Your task to perform on an android device: empty trash in google photos Image 0: 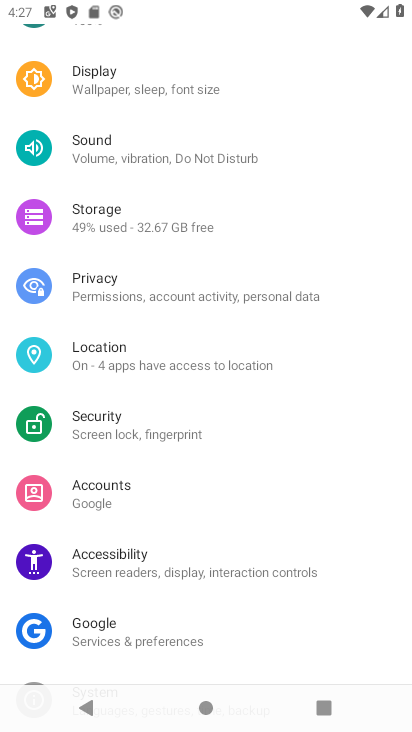
Step 0: drag from (155, 525) to (162, 245)
Your task to perform on an android device: empty trash in google photos Image 1: 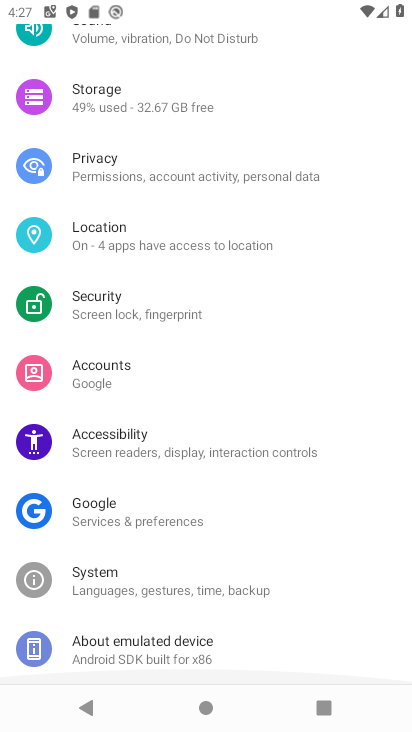
Step 1: drag from (198, 471) to (181, 170)
Your task to perform on an android device: empty trash in google photos Image 2: 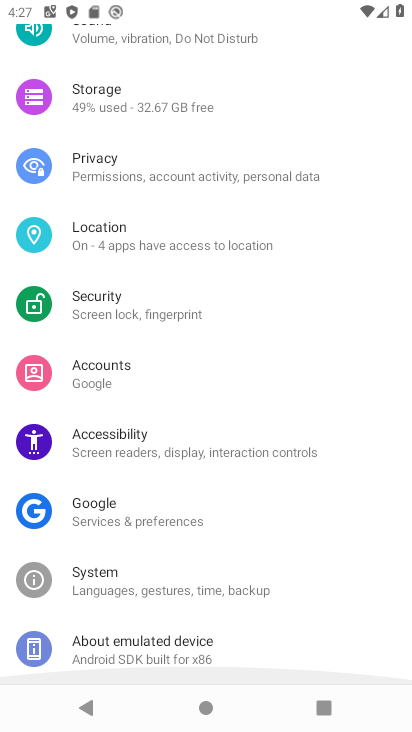
Step 2: drag from (163, 337) to (158, 45)
Your task to perform on an android device: empty trash in google photos Image 3: 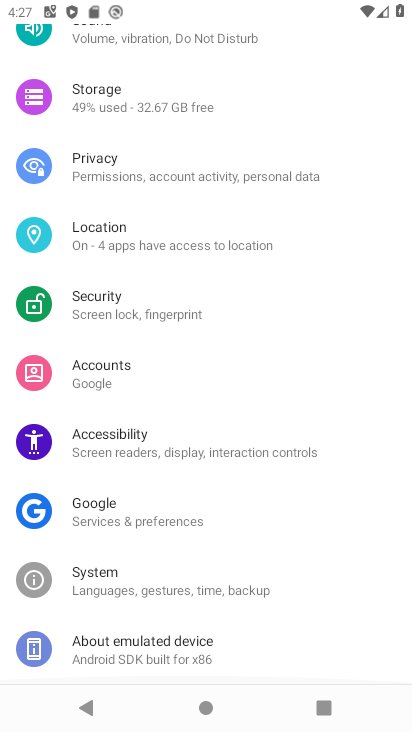
Step 3: drag from (167, 302) to (178, 117)
Your task to perform on an android device: empty trash in google photos Image 4: 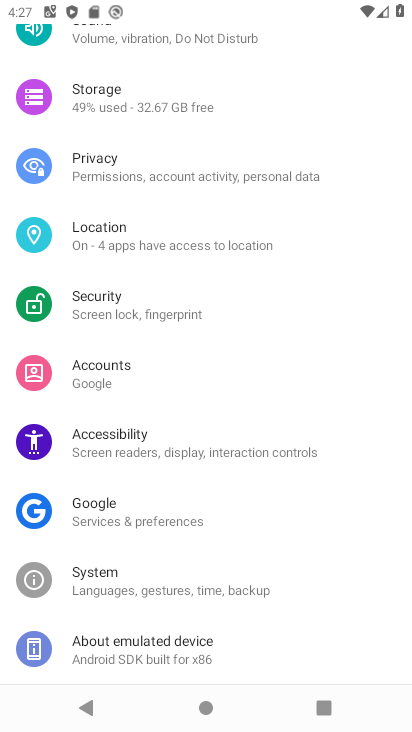
Step 4: drag from (146, 516) to (142, 22)
Your task to perform on an android device: empty trash in google photos Image 5: 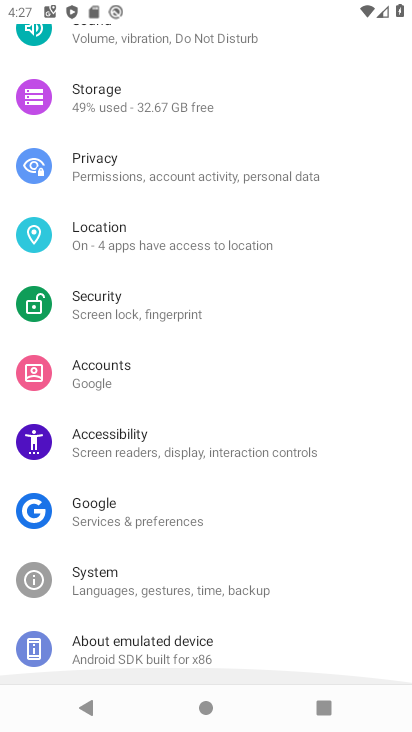
Step 5: drag from (176, 451) to (113, 181)
Your task to perform on an android device: empty trash in google photos Image 6: 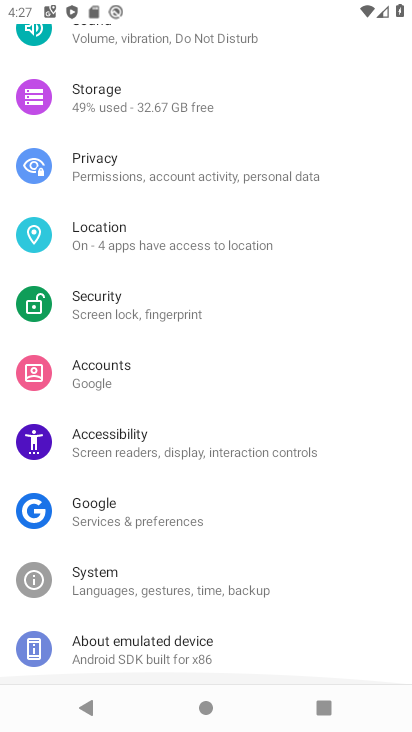
Step 6: drag from (144, 503) to (131, 153)
Your task to perform on an android device: empty trash in google photos Image 7: 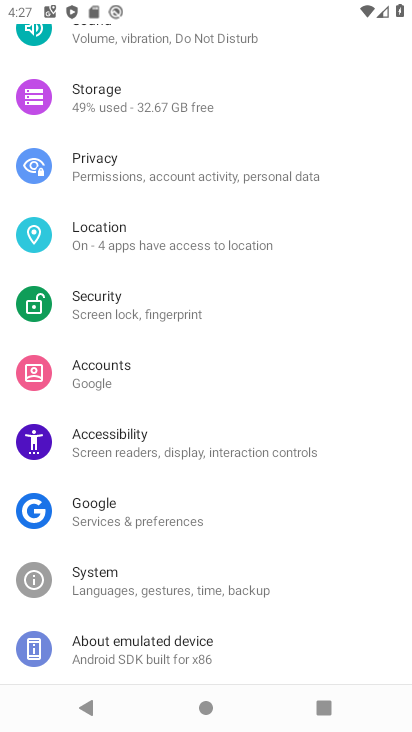
Step 7: press back button
Your task to perform on an android device: empty trash in google photos Image 8: 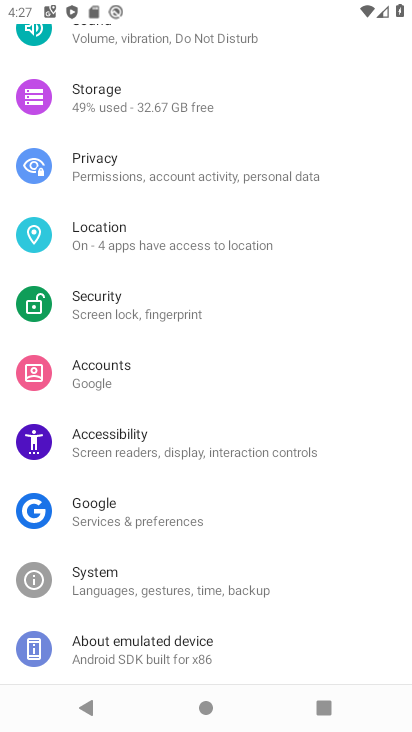
Step 8: press back button
Your task to perform on an android device: empty trash in google photos Image 9: 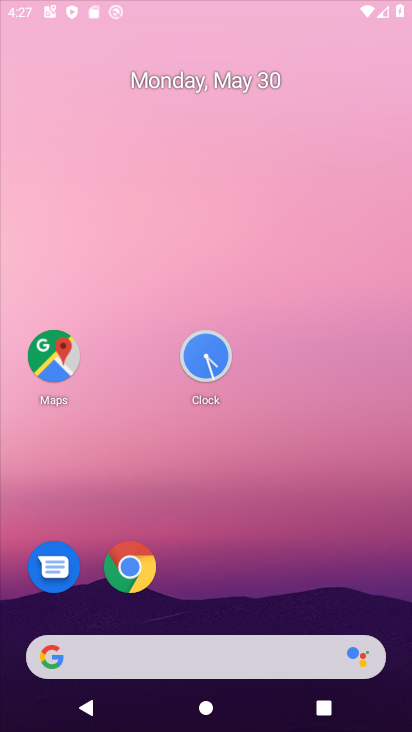
Step 9: press back button
Your task to perform on an android device: empty trash in google photos Image 10: 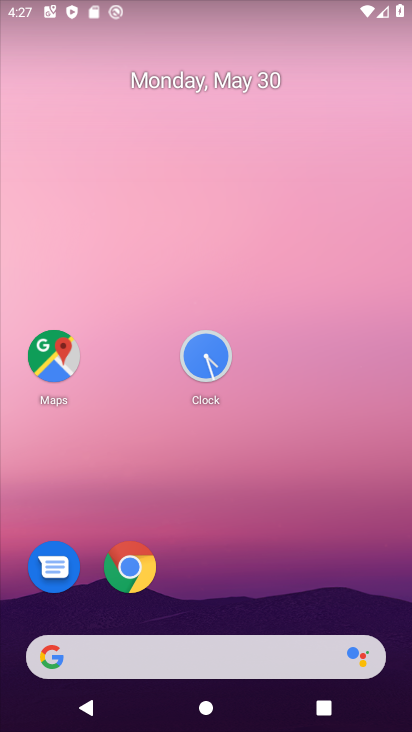
Step 10: drag from (311, 641) to (302, 97)
Your task to perform on an android device: empty trash in google photos Image 11: 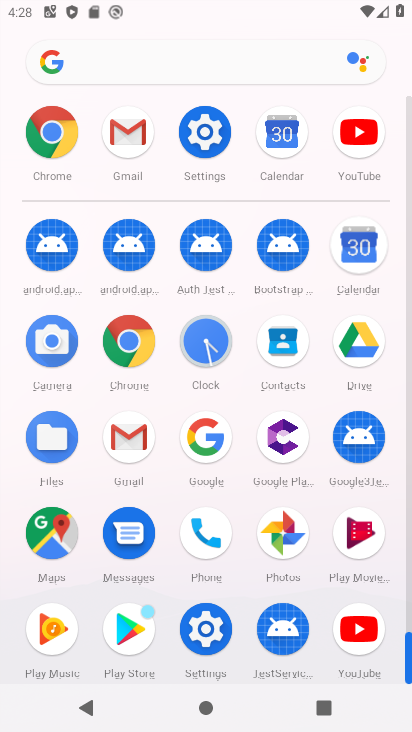
Step 11: click (286, 543)
Your task to perform on an android device: empty trash in google photos Image 12: 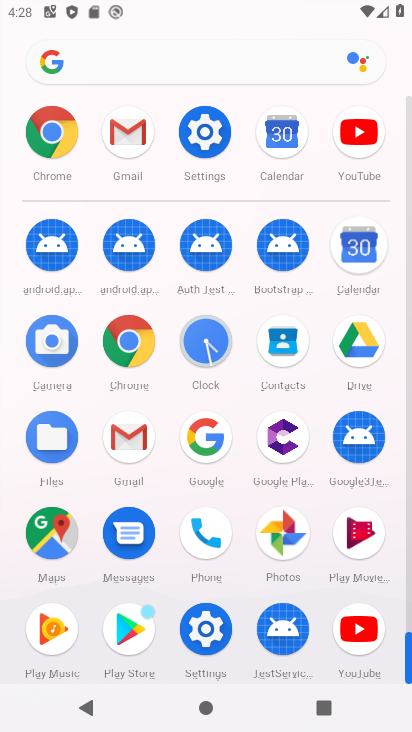
Step 12: click (287, 544)
Your task to perform on an android device: empty trash in google photos Image 13: 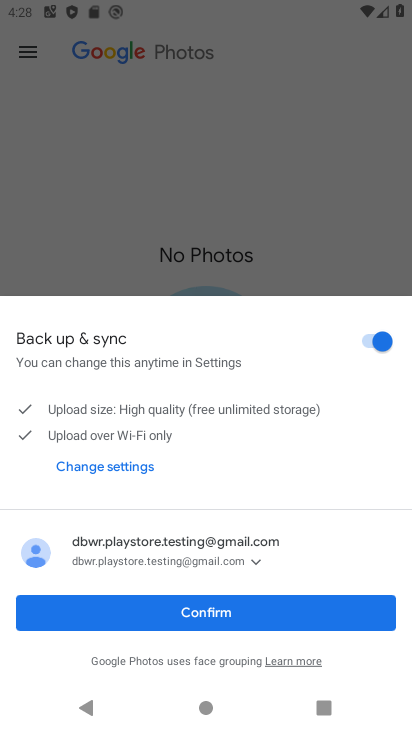
Step 13: click (222, 617)
Your task to perform on an android device: empty trash in google photos Image 14: 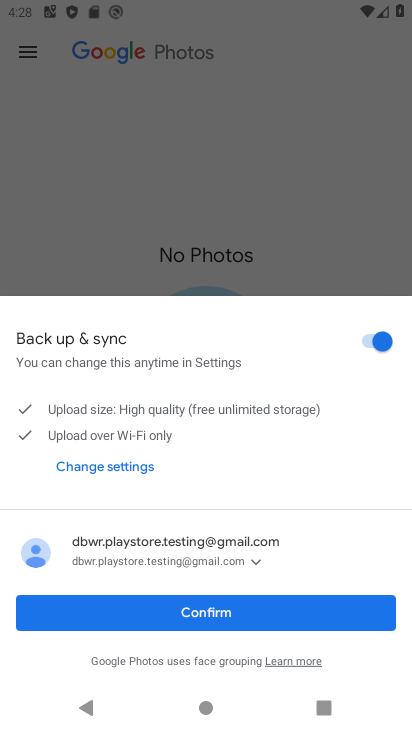
Step 14: click (224, 617)
Your task to perform on an android device: empty trash in google photos Image 15: 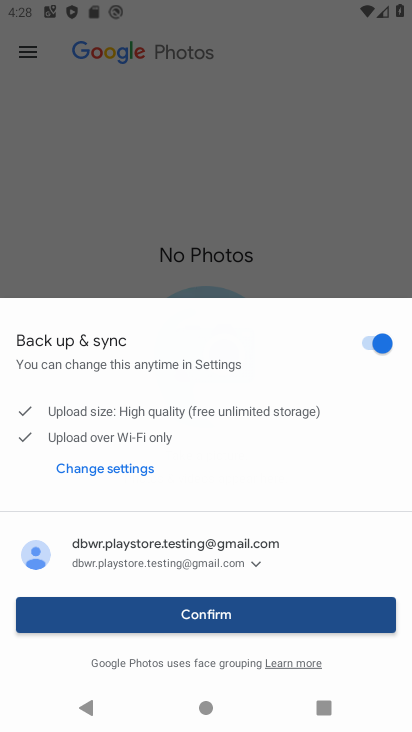
Step 15: click (224, 617)
Your task to perform on an android device: empty trash in google photos Image 16: 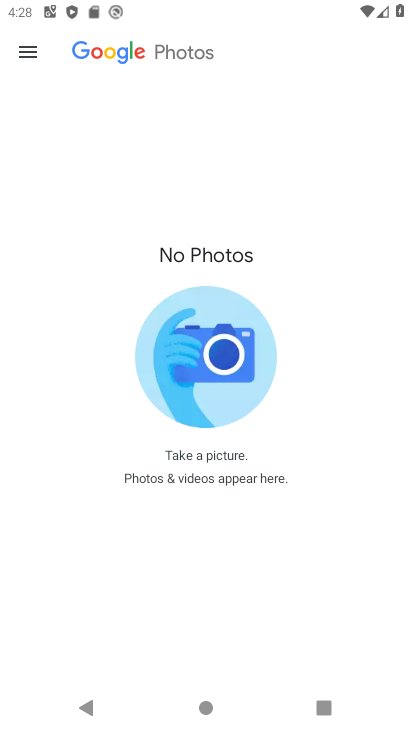
Step 16: click (212, 596)
Your task to perform on an android device: empty trash in google photos Image 17: 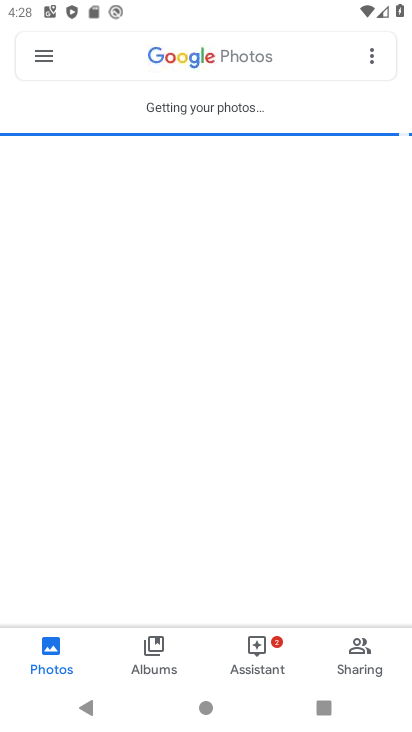
Step 17: click (50, 57)
Your task to perform on an android device: empty trash in google photos Image 18: 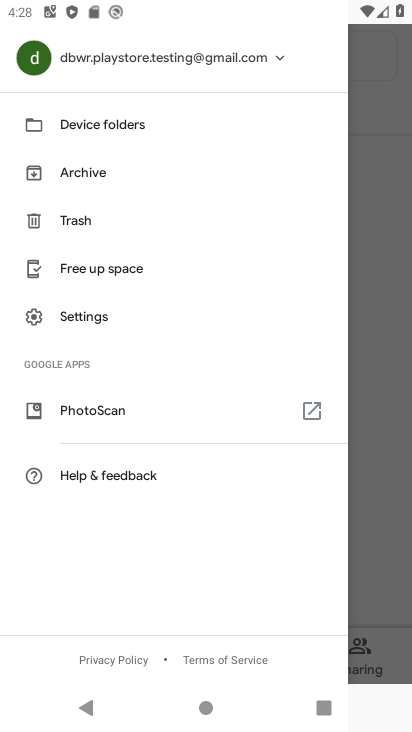
Step 18: click (84, 318)
Your task to perform on an android device: empty trash in google photos Image 19: 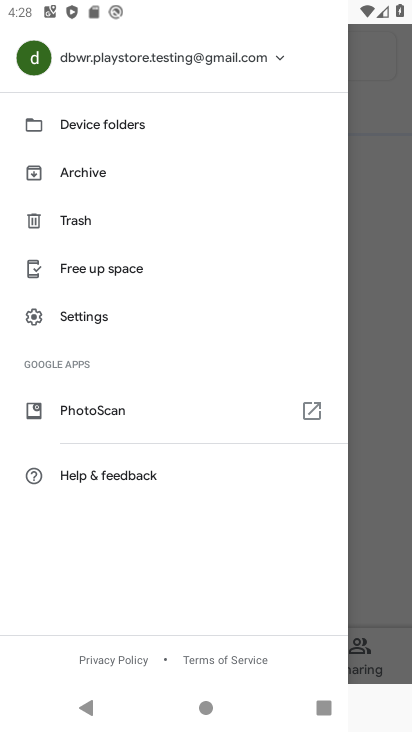
Step 19: click (84, 318)
Your task to perform on an android device: empty trash in google photos Image 20: 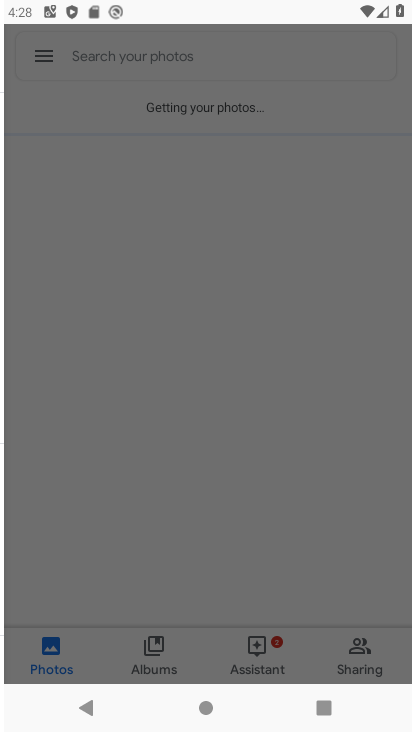
Step 20: click (84, 318)
Your task to perform on an android device: empty trash in google photos Image 21: 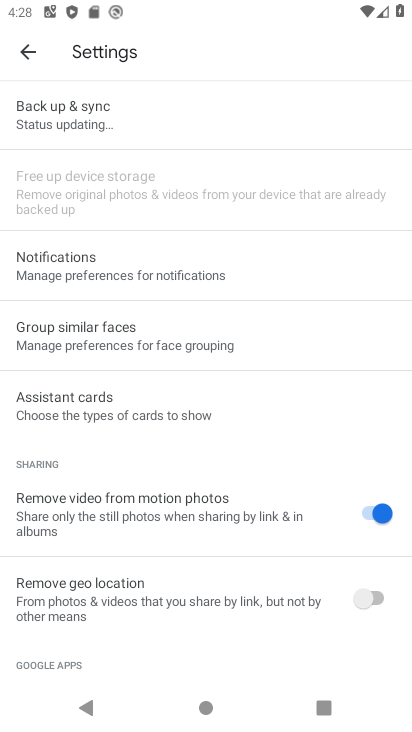
Step 21: click (25, 53)
Your task to perform on an android device: empty trash in google photos Image 22: 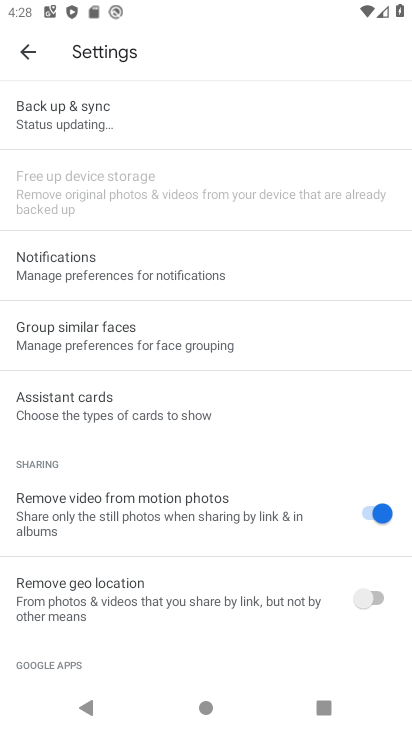
Step 22: click (25, 52)
Your task to perform on an android device: empty trash in google photos Image 23: 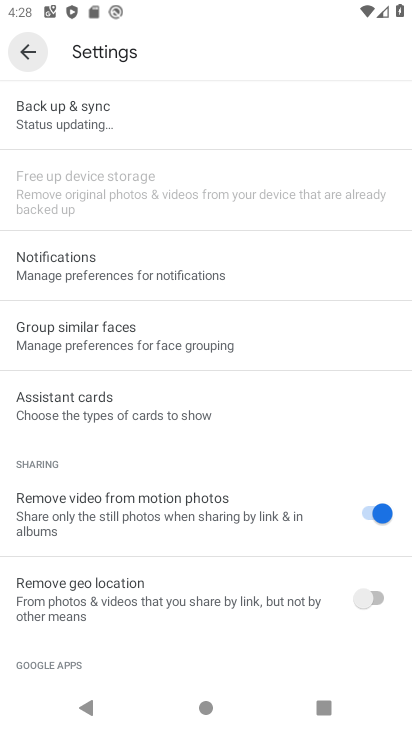
Step 23: click (25, 52)
Your task to perform on an android device: empty trash in google photos Image 24: 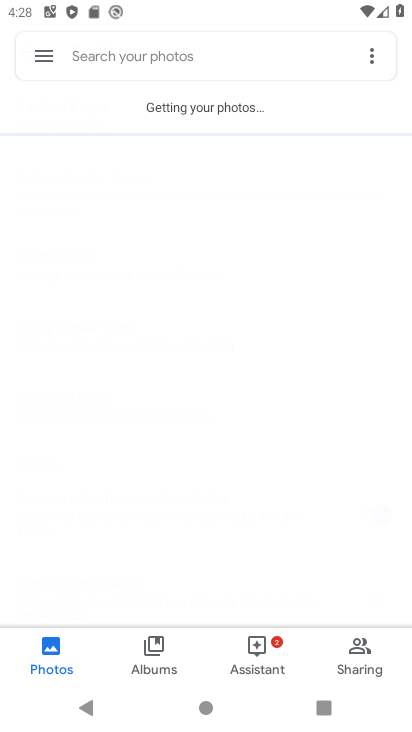
Step 24: click (25, 52)
Your task to perform on an android device: empty trash in google photos Image 25: 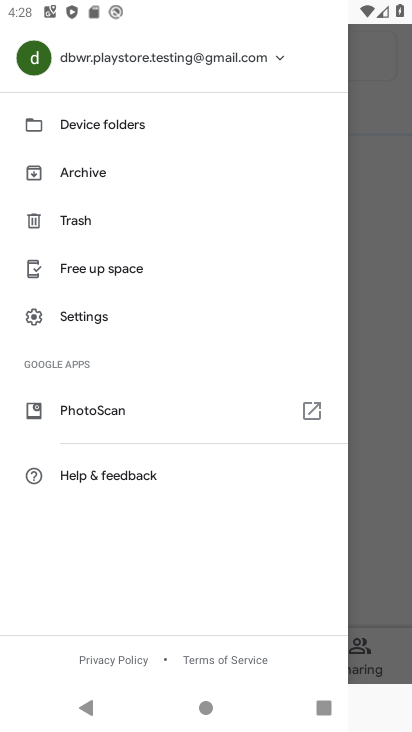
Step 25: click (27, 52)
Your task to perform on an android device: empty trash in google photos Image 26: 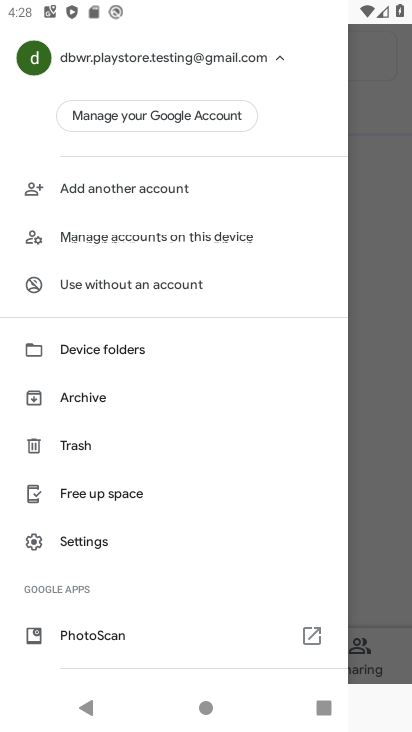
Step 26: click (72, 441)
Your task to perform on an android device: empty trash in google photos Image 27: 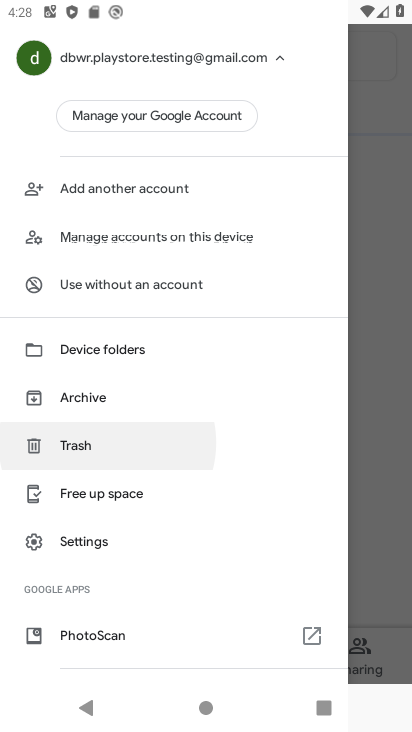
Step 27: click (72, 440)
Your task to perform on an android device: empty trash in google photos Image 28: 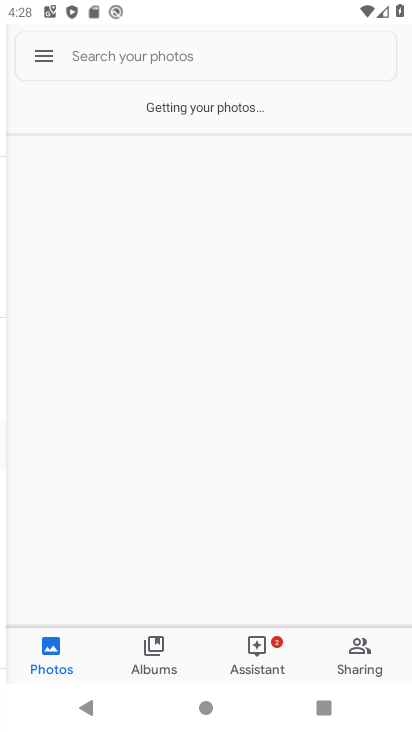
Step 28: click (72, 440)
Your task to perform on an android device: empty trash in google photos Image 29: 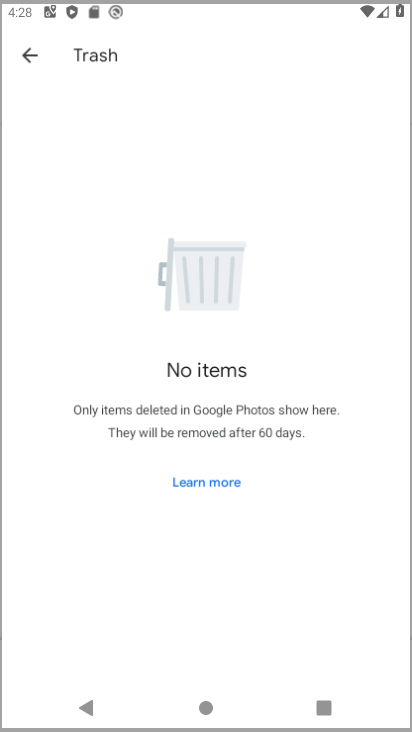
Step 29: click (73, 441)
Your task to perform on an android device: empty trash in google photos Image 30: 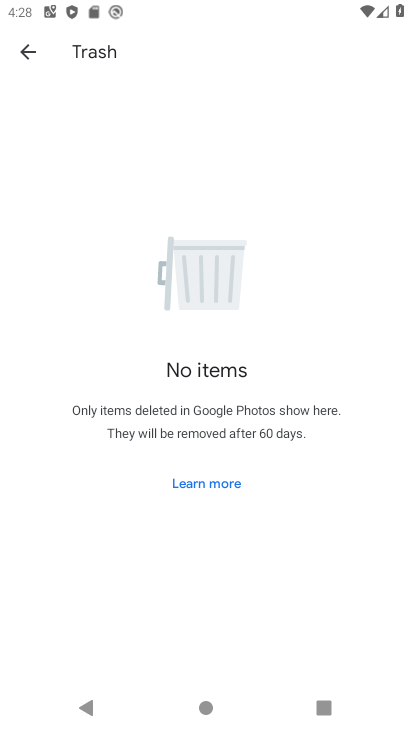
Step 30: click (73, 441)
Your task to perform on an android device: empty trash in google photos Image 31: 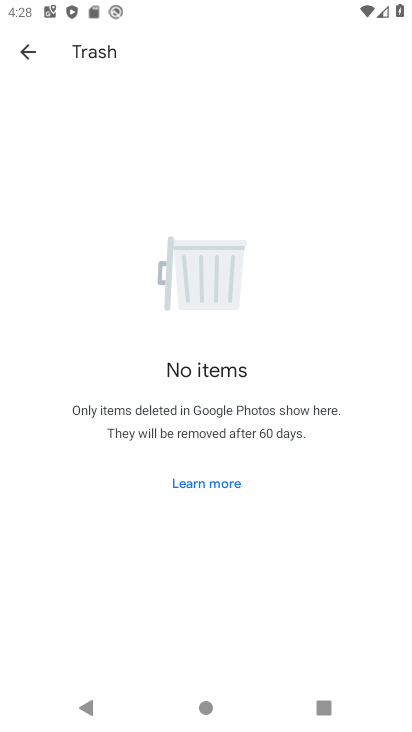
Step 31: task complete